Your task to perform on an android device: When is my next meeting? Image 0: 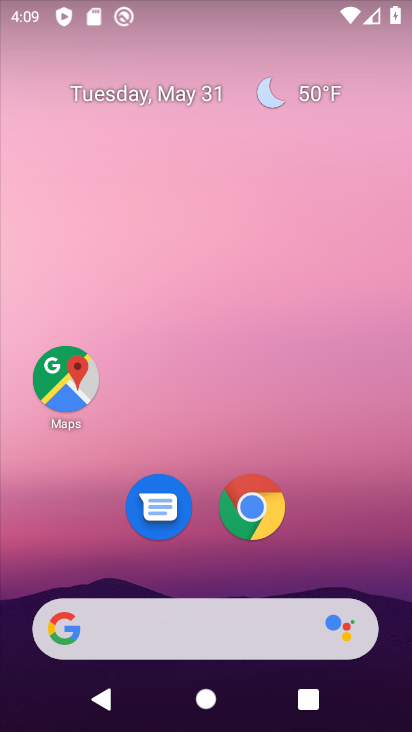
Step 0: drag from (229, 439) to (208, 24)
Your task to perform on an android device: When is my next meeting? Image 1: 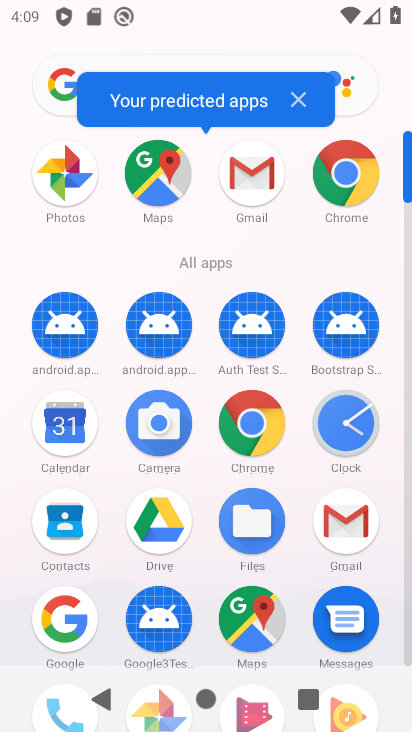
Step 1: click (74, 422)
Your task to perform on an android device: When is my next meeting? Image 2: 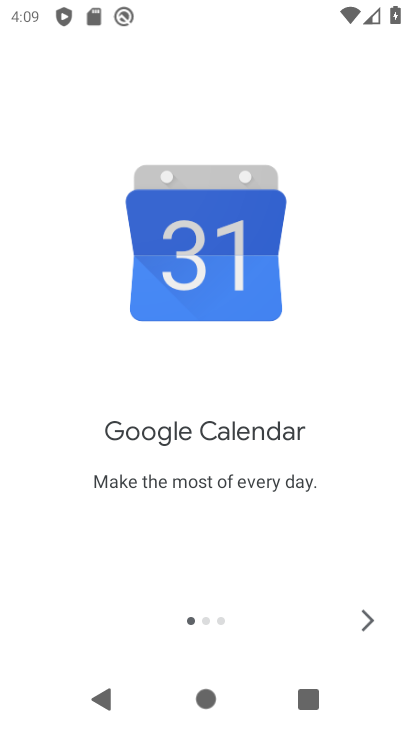
Step 2: click (368, 613)
Your task to perform on an android device: When is my next meeting? Image 3: 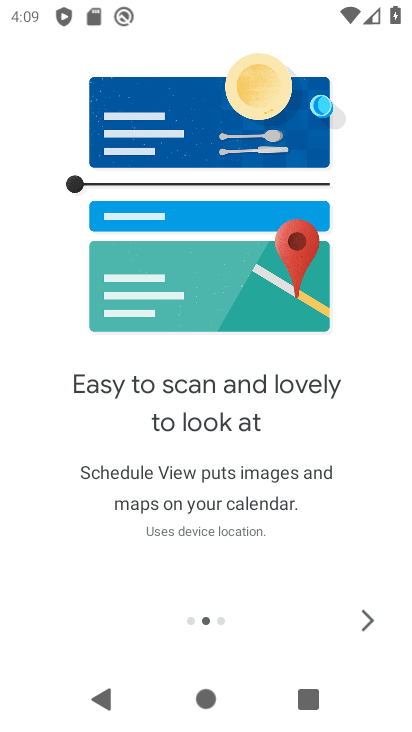
Step 3: click (368, 615)
Your task to perform on an android device: When is my next meeting? Image 4: 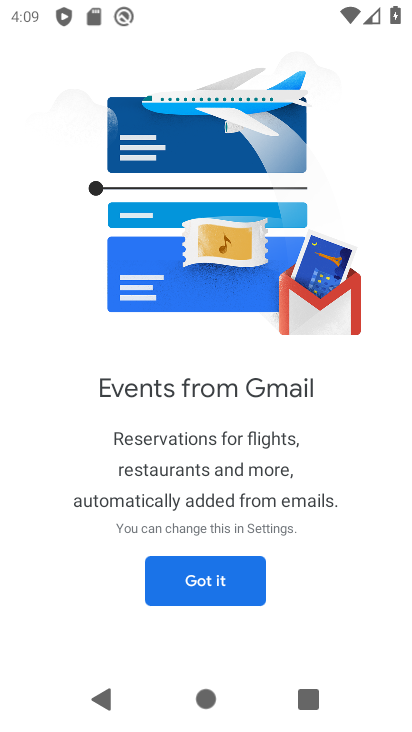
Step 4: click (245, 584)
Your task to perform on an android device: When is my next meeting? Image 5: 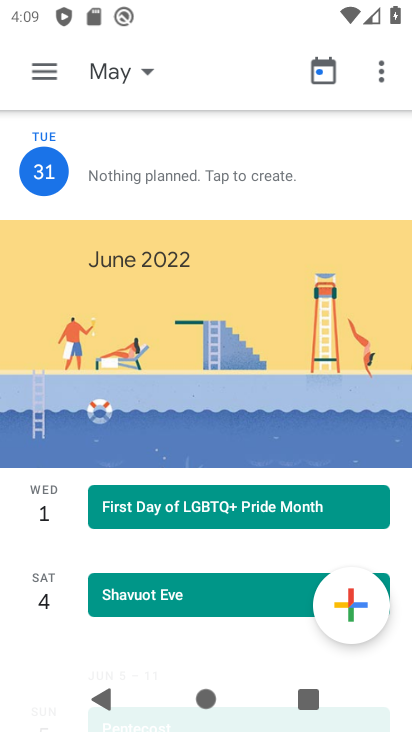
Step 5: drag from (239, 532) to (187, 167)
Your task to perform on an android device: When is my next meeting? Image 6: 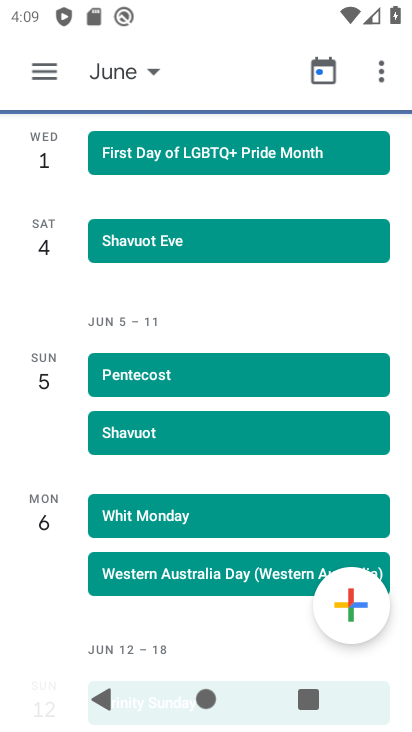
Step 6: click (41, 72)
Your task to perform on an android device: When is my next meeting? Image 7: 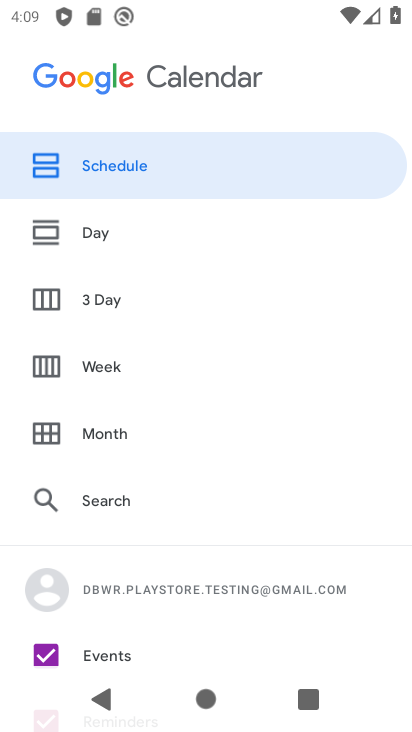
Step 7: click (54, 164)
Your task to perform on an android device: When is my next meeting? Image 8: 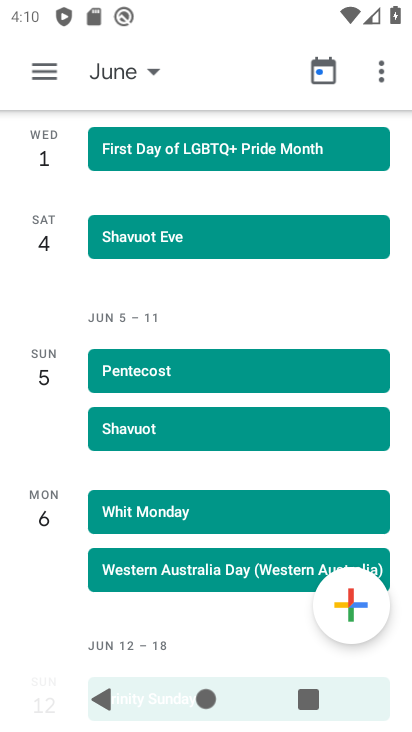
Step 8: task complete